Your task to perform on an android device: Search for Mexican restaurants on Maps Image 0: 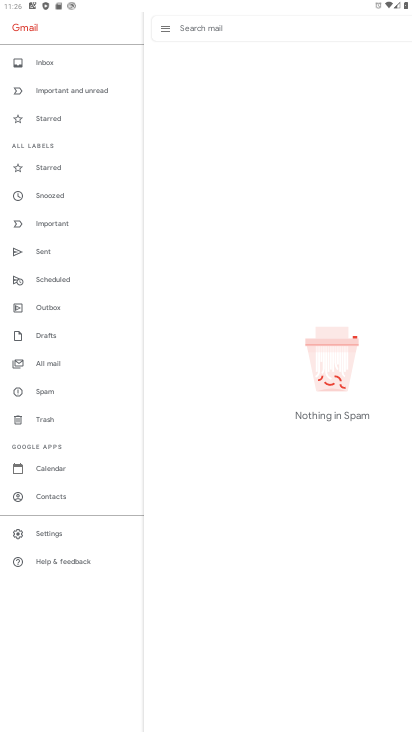
Step 0: press home button
Your task to perform on an android device: Search for Mexican restaurants on Maps Image 1: 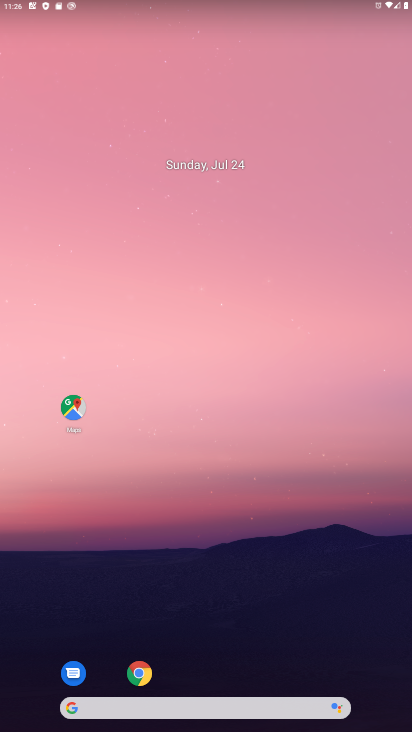
Step 1: drag from (289, 680) to (259, 66)
Your task to perform on an android device: Search for Mexican restaurants on Maps Image 2: 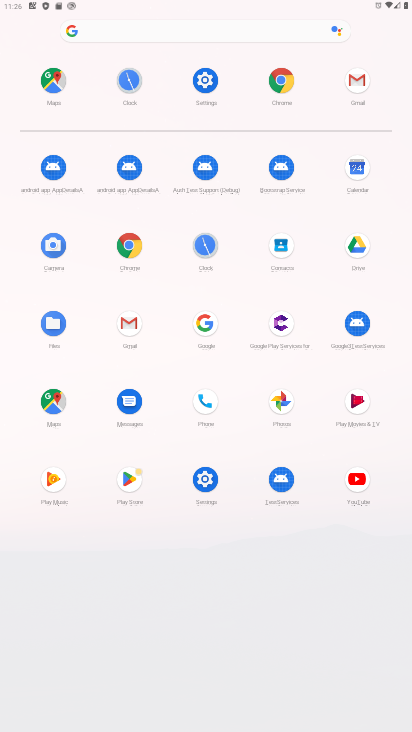
Step 2: click (51, 407)
Your task to perform on an android device: Search for Mexican restaurants on Maps Image 3: 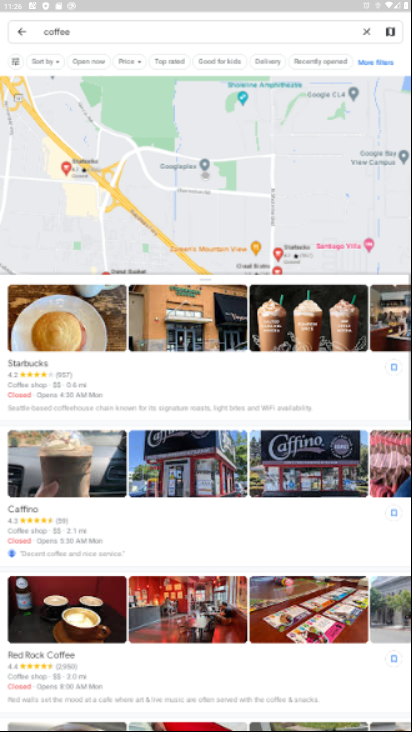
Step 3: click (171, 32)
Your task to perform on an android device: Search for Mexican restaurants on Maps Image 4: 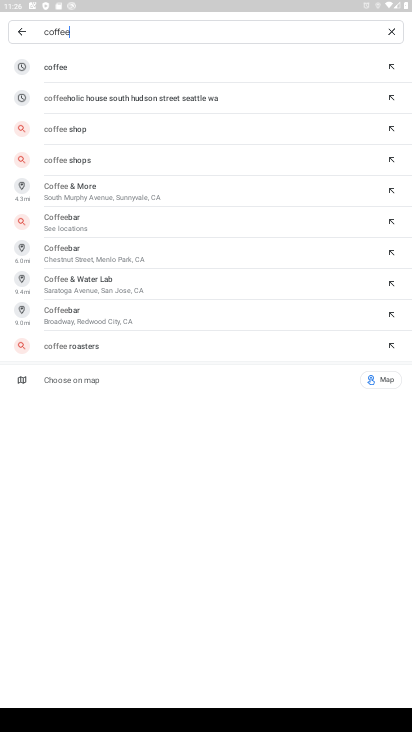
Step 4: click (394, 31)
Your task to perform on an android device: Search for Mexican restaurants on Maps Image 5: 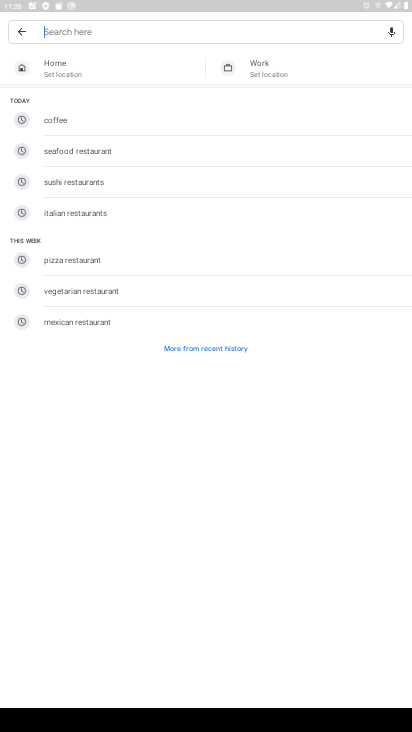
Step 5: type "mexican restaurants"
Your task to perform on an android device: Search for Mexican restaurants on Maps Image 6: 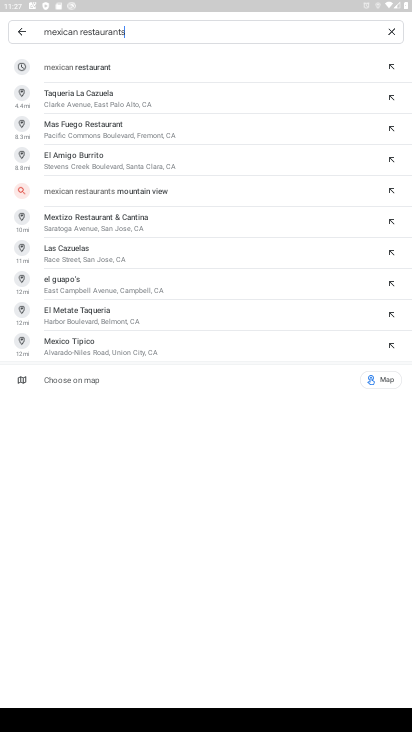
Step 6: press enter
Your task to perform on an android device: Search for Mexican restaurants on Maps Image 7: 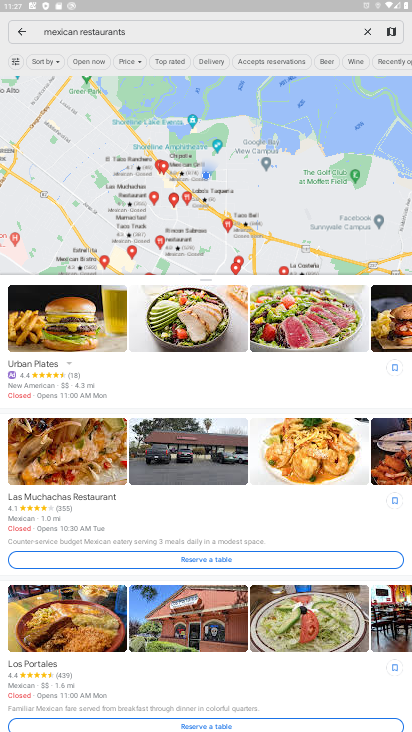
Step 7: task complete